Your task to perform on an android device: toggle notification dots Image 0: 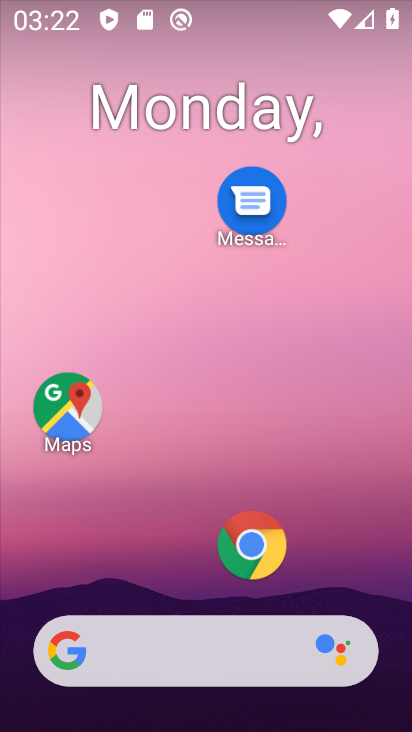
Step 0: drag from (142, 578) to (246, 66)
Your task to perform on an android device: toggle notification dots Image 1: 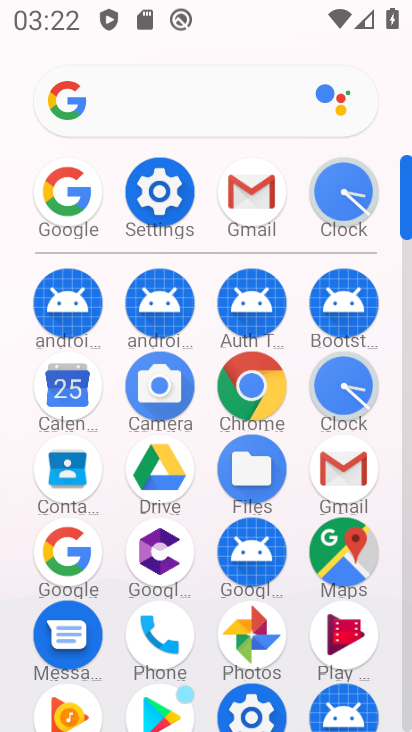
Step 1: click (158, 198)
Your task to perform on an android device: toggle notification dots Image 2: 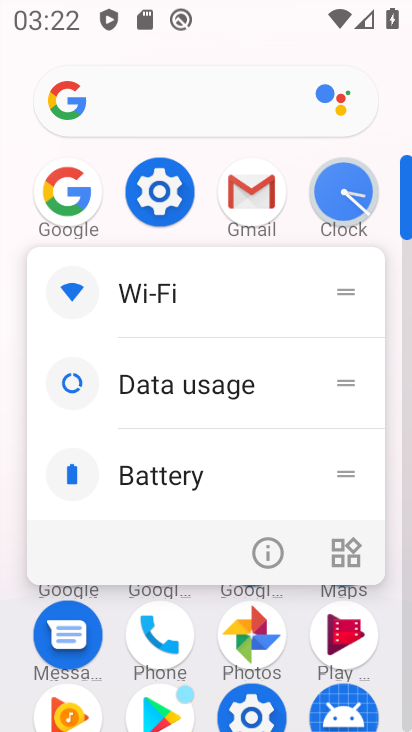
Step 2: click (158, 198)
Your task to perform on an android device: toggle notification dots Image 3: 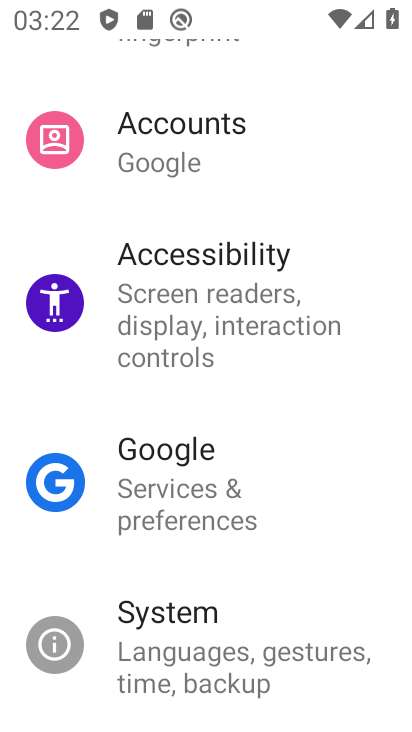
Step 3: drag from (220, 208) to (216, 724)
Your task to perform on an android device: toggle notification dots Image 4: 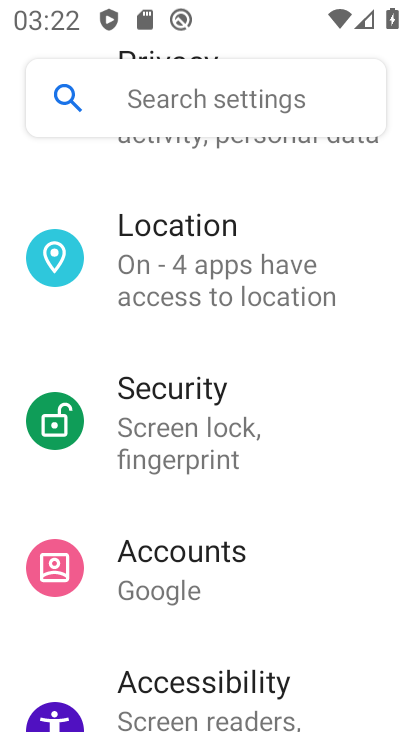
Step 4: drag from (255, 229) to (143, 728)
Your task to perform on an android device: toggle notification dots Image 5: 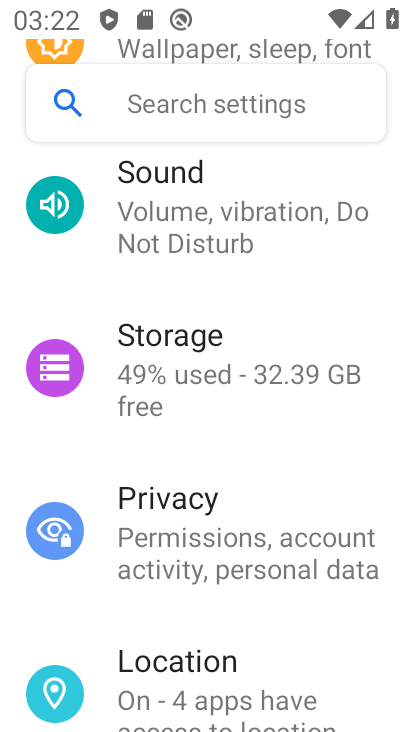
Step 5: drag from (253, 265) to (192, 630)
Your task to perform on an android device: toggle notification dots Image 6: 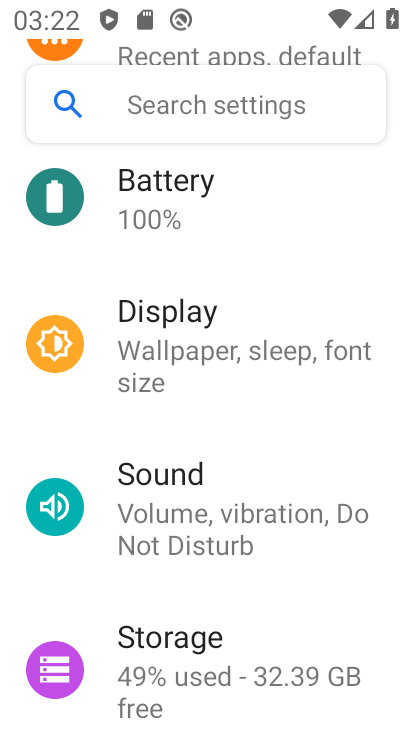
Step 6: drag from (235, 234) to (172, 703)
Your task to perform on an android device: toggle notification dots Image 7: 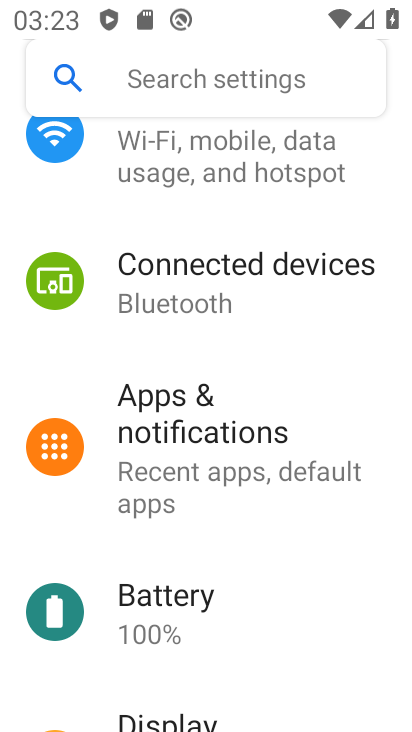
Step 7: click (231, 436)
Your task to perform on an android device: toggle notification dots Image 8: 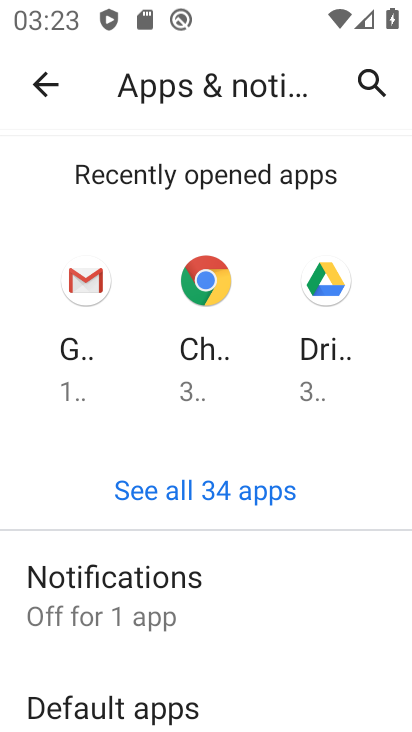
Step 8: click (189, 594)
Your task to perform on an android device: toggle notification dots Image 9: 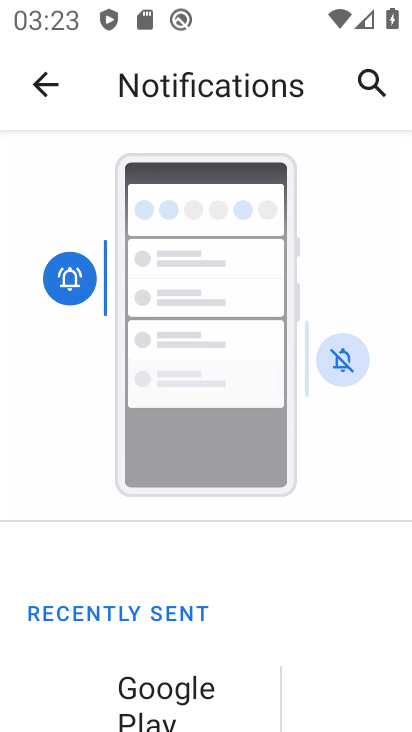
Step 9: drag from (193, 659) to (353, 149)
Your task to perform on an android device: toggle notification dots Image 10: 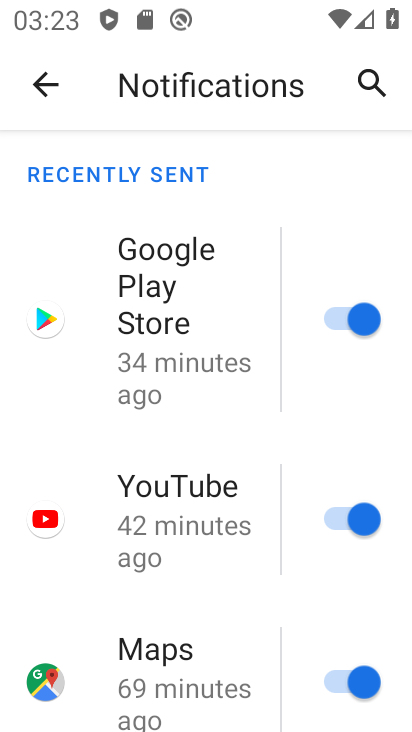
Step 10: drag from (178, 632) to (251, 242)
Your task to perform on an android device: toggle notification dots Image 11: 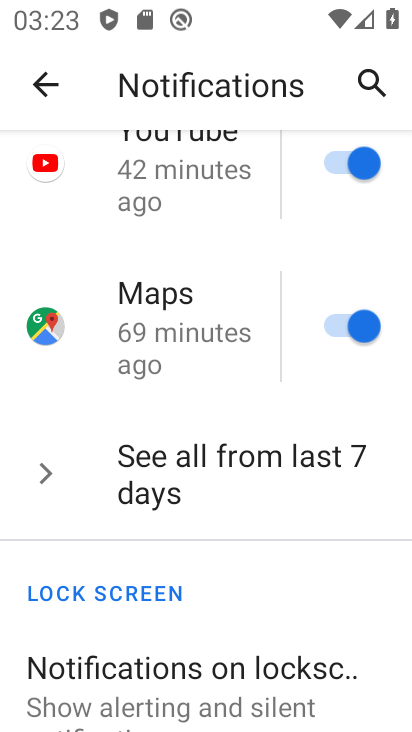
Step 11: drag from (165, 680) to (288, 170)
Your task to perform on an android device: toggle notification dots Image 12: 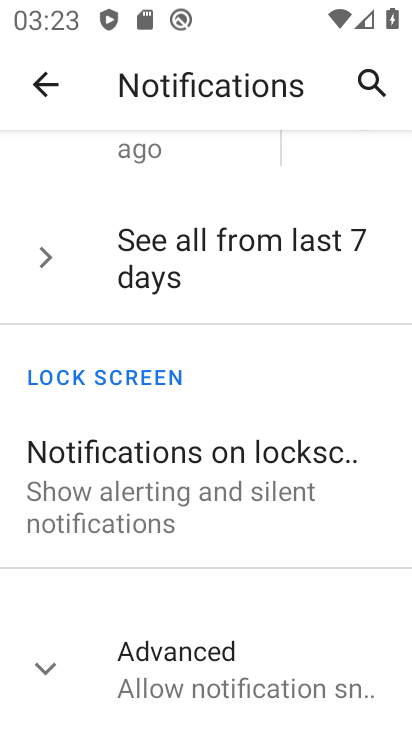
Step 12: click (204, 641)
Your task to perform on an android device: toggle notification dots Image 13: 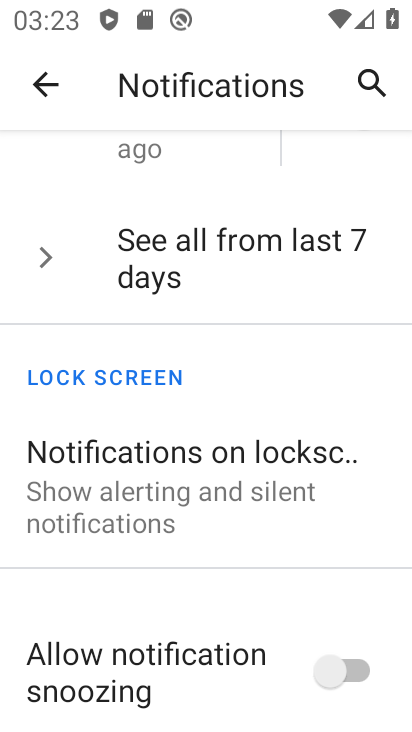
Step 13: drag from (196, 668) to (289, 191)
Your task to perform on an android device: toggle notification dots Image 14: 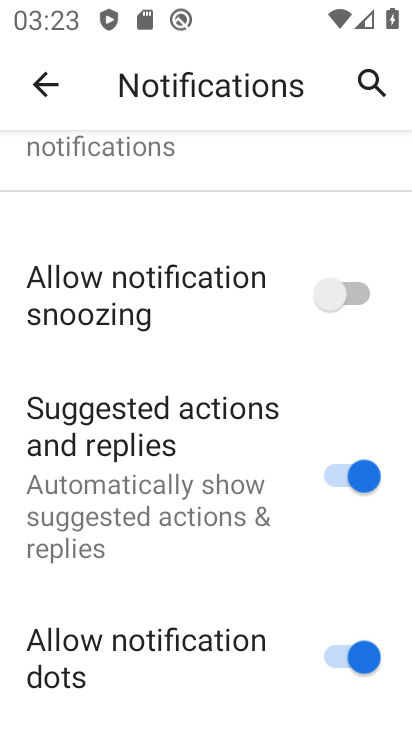
Step 14: click (349, 661)
Your task to perform on an android device: toggle notification dots Image 15: 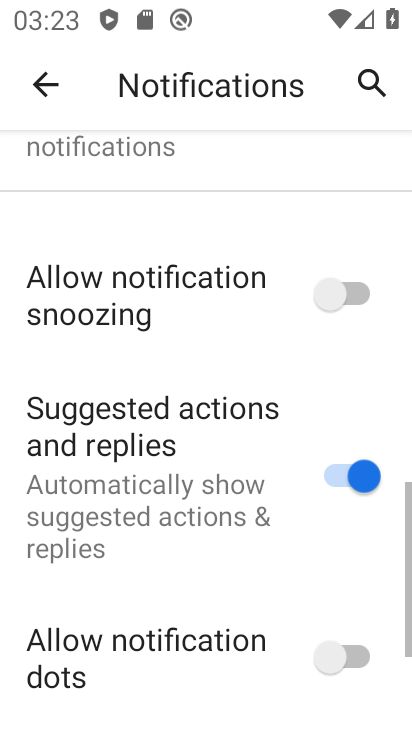
Step 15: task complete